Your task to perform on an android device: turn off priority inbox in the gmail app Image 0: 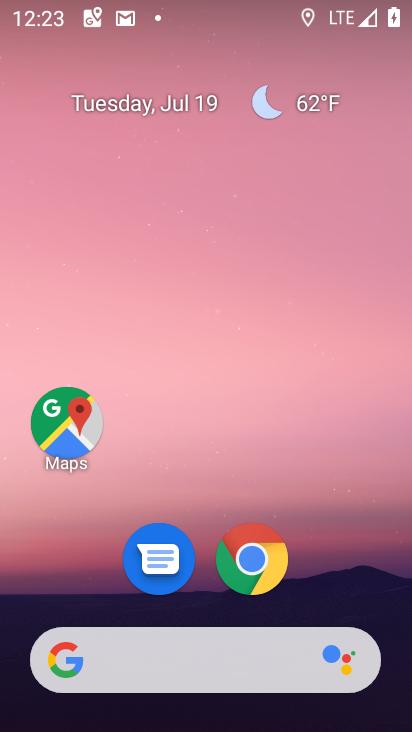
Step 0: drag from (208, 642) to (277, 113)
Your task to perform on an android device: turn off priority inbox in the gmail app Image 1: 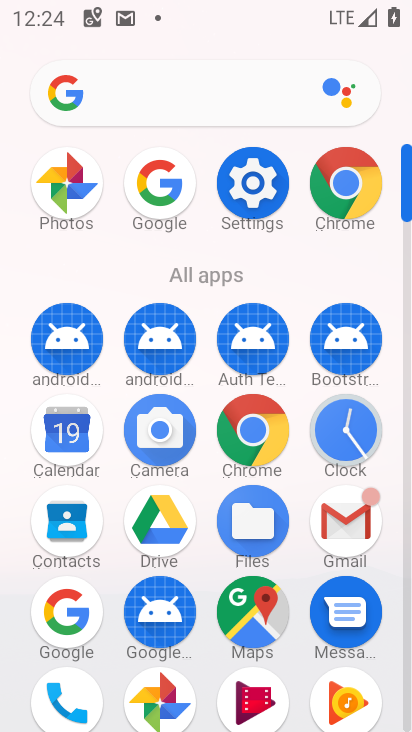
Step 1: click (341, 538)
Your task to perform on an android device: turn off priority inbox in the gmail app Image 2: 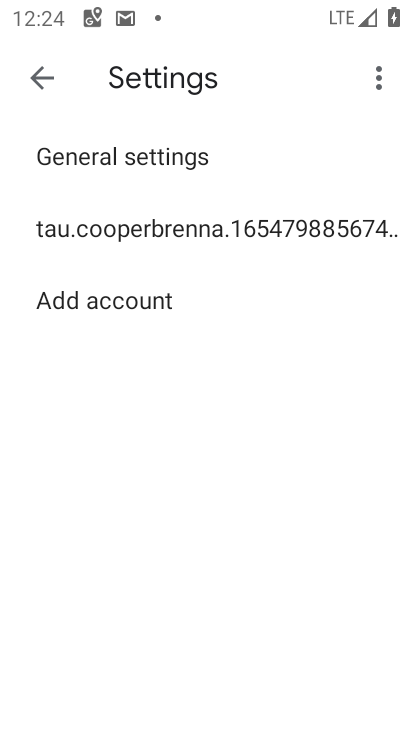
Step 2: click (103, 226)
Your task to perform on an android device: turn off priority inbox in the gmail app Image 3: 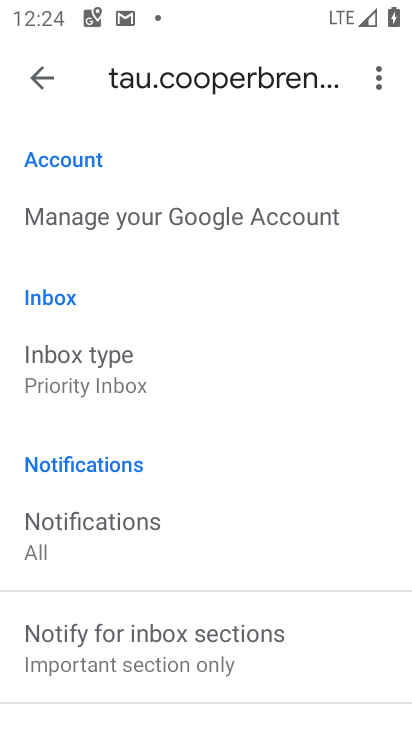
Step 3: click (95, 376)
Your task to perform on an android device: turn off priority inbox in the gmail app Image 4: 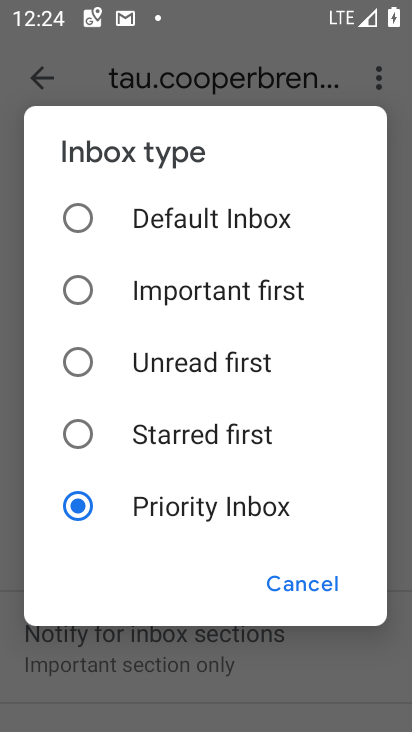
Step 4: click (95, 227)
Your task to perform on an android device: turn off priority inbox in the gmail app Image 5: 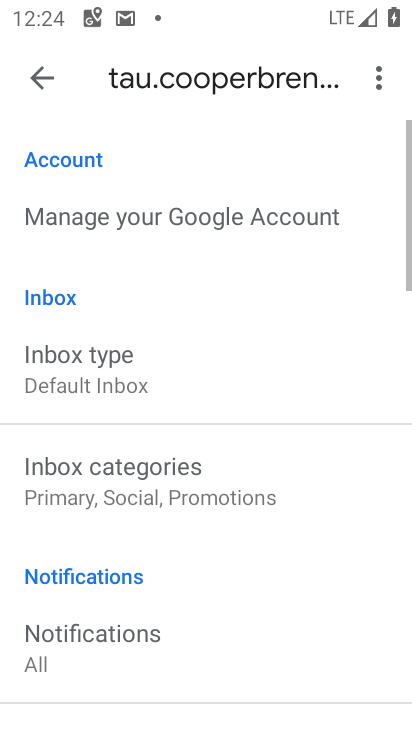
Step 5: task complete